Your task to perform on an android device: Go to Android settings Image 0: 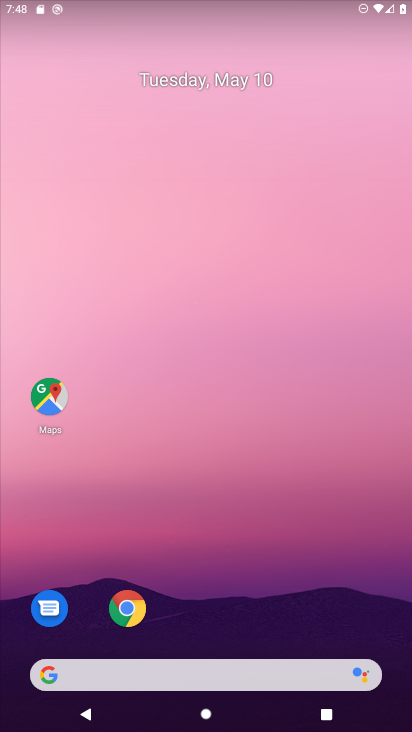
Step 0: drag from (326, 562) to (279, 292)
Your task to perform on an android device: Go to Android settings Image 1: 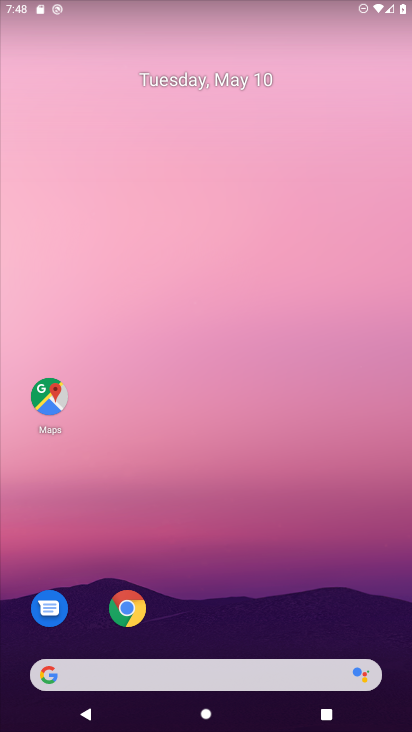
Step 1: drag from (242, 598) to (260, 145)
Your task to perform on an android device: Go to Android settings Image 2: 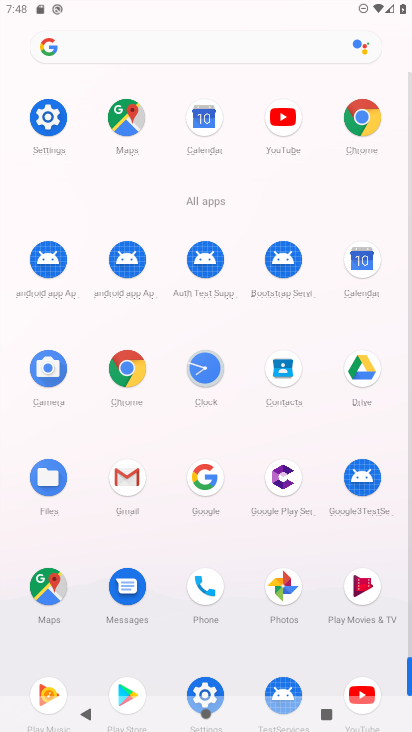
Step 2: click (51, 105)
Your task to perform on an android device: Go to Android settings Image 3: 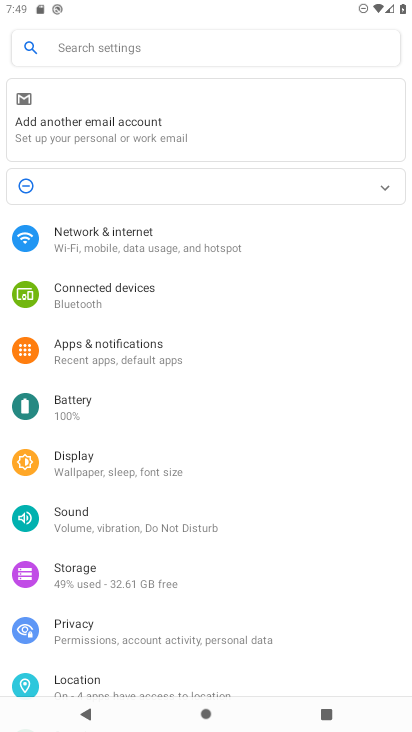
Step 3: task complete